Your task to perform on an android device: Go to battery settings Image 0: 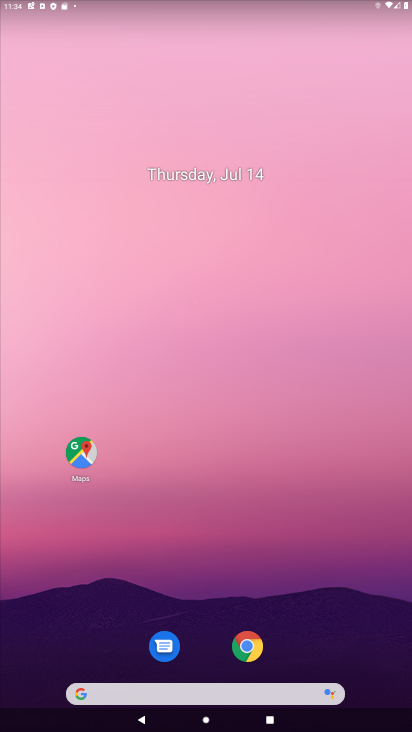
Step 0: drag from (186, 655) to (189, 242)
Your task to perform on an android device: Go to battery settings Image 1: 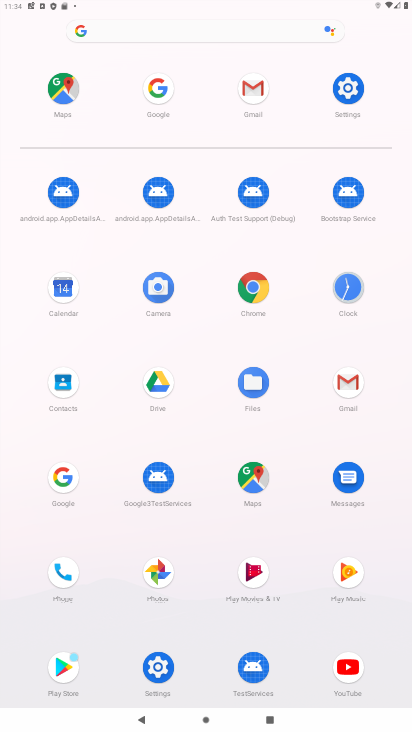
Step 1: click (336, 92)
Your task to perform on an android device: Go to battery settings Image 2: 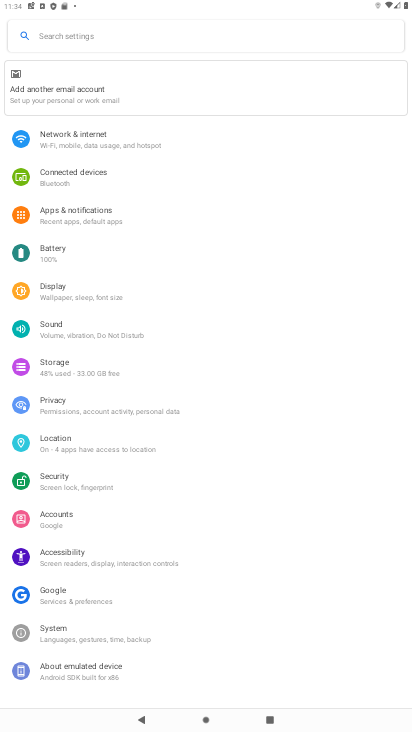
Step 2: click (73, 253)
Your task to perform on an android device: Go to battery settings Image 3: 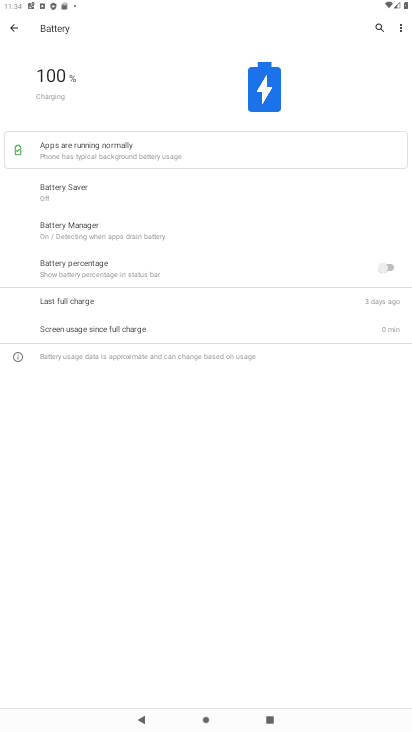
Step 3: task complete